Your task to perform on an android device: Turn off the flashlight Image 0: 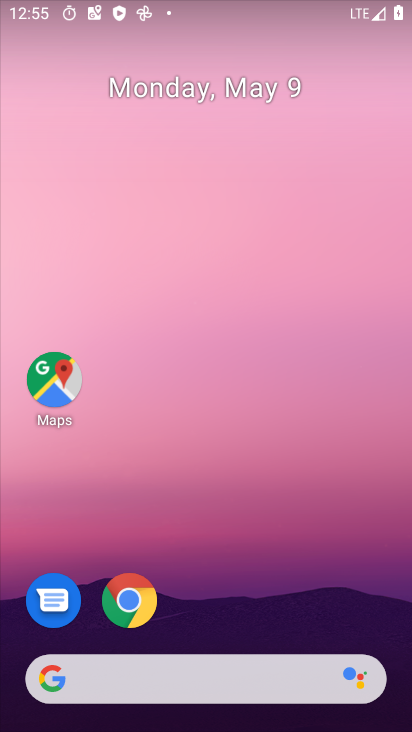
Step 0: drag from (251, 579) to (226, 213)
Your task to perform on an android device: Turn off the flashlight Image 1: 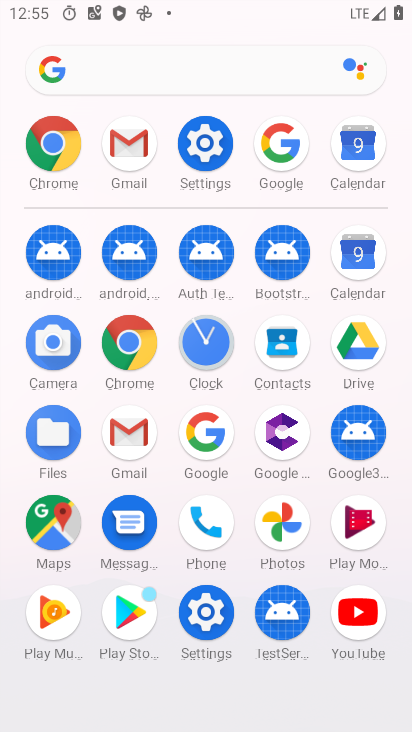
Step 1: click (199, 160)
Your task to perform on an android device: Turn off the flashlight Image 2: 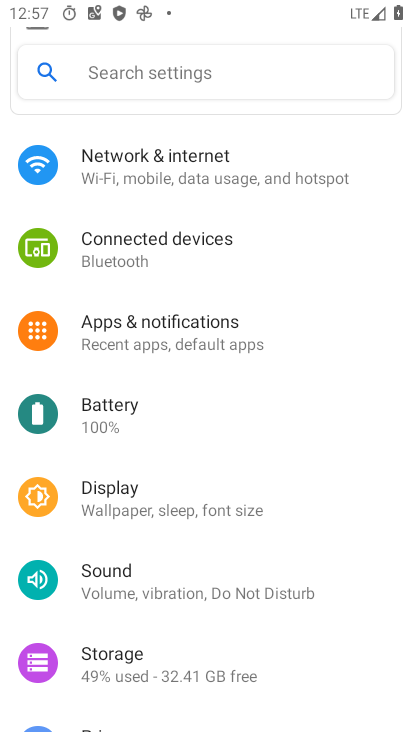
Step 2: task complete